Your task to perform on an android device: change the clock style Image 0: 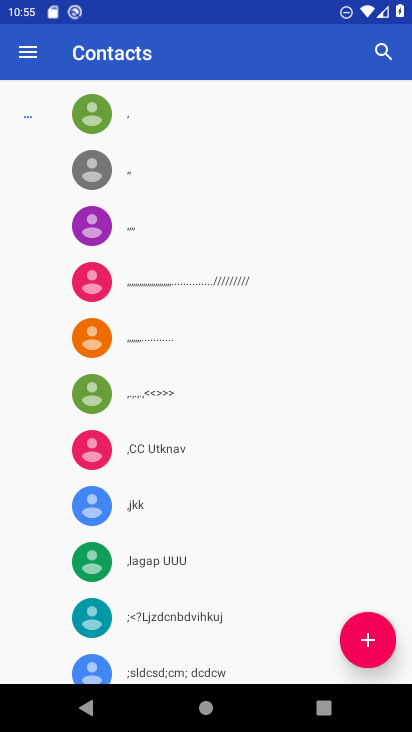
Step 0: press home button
Your task to perform on an android device: change the clock style Image 1: 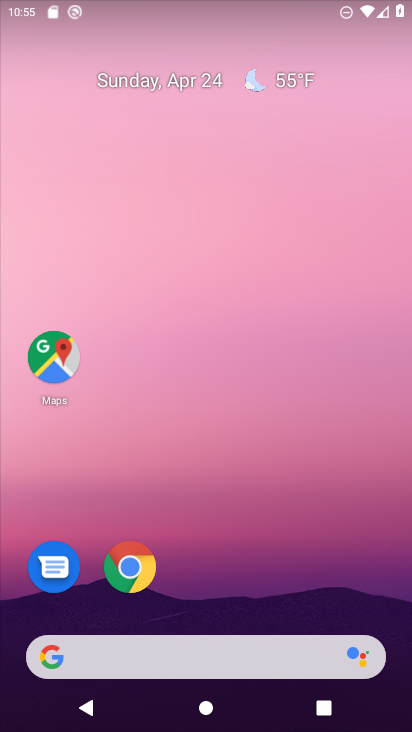
Step 1: drag from (403, 635) to (391, 207)
Your task to perform on an android device: change the clock style Image 2: 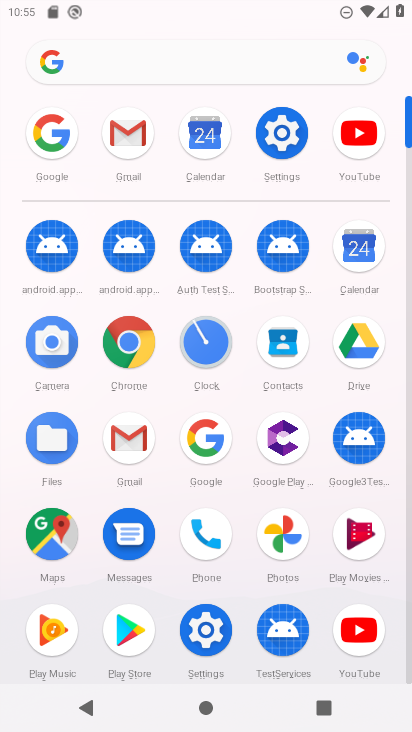
Step 2: click (202, 336)
Your task to perform on an android device: change the clock style Image 3: 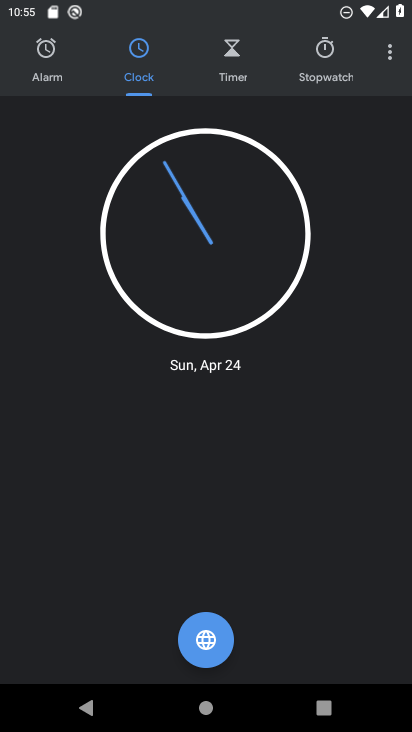
Step 3: click (389, 52)
Your task to perform on an android device: change the clock style Image 4: 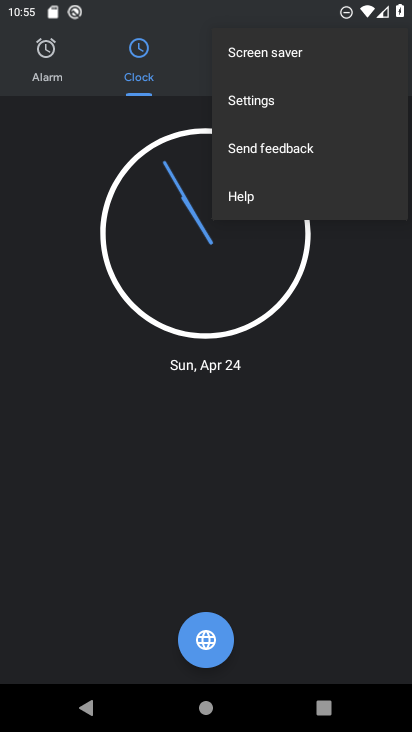
Step 4: click (254, 103)
Your task to perform on an android device: change the clock style Image 5: 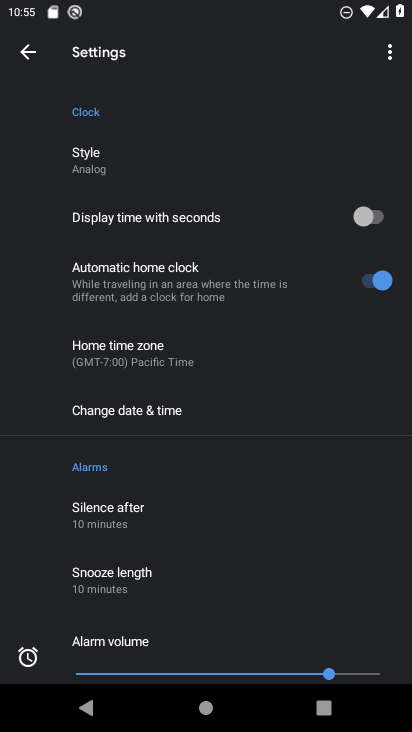
Step 5: click (85, 153)
Your task to perform on an android device: change the clock style Image 6: 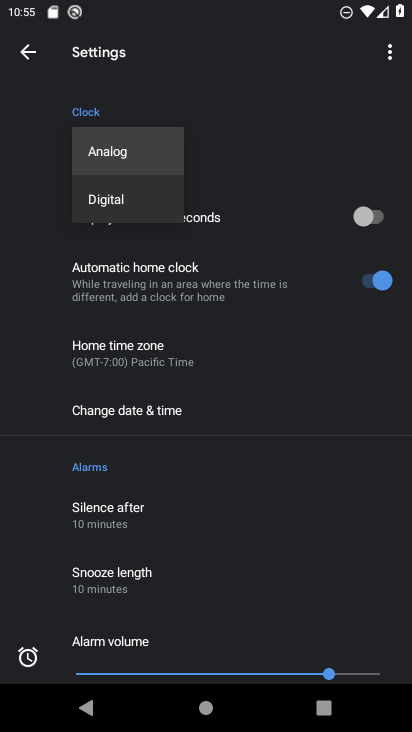
Step 6: click (112, 194)
Your task to perform on an android device: change the clock style Image 7: 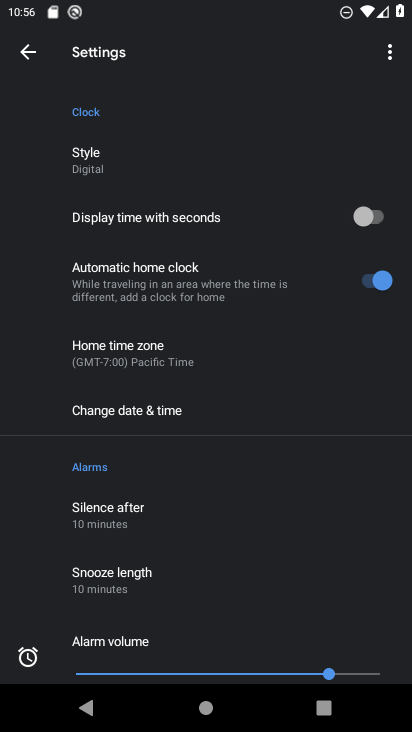
Step 7: task complete